Your task to perform on an android device: see creations saved in the google photos Image 0: 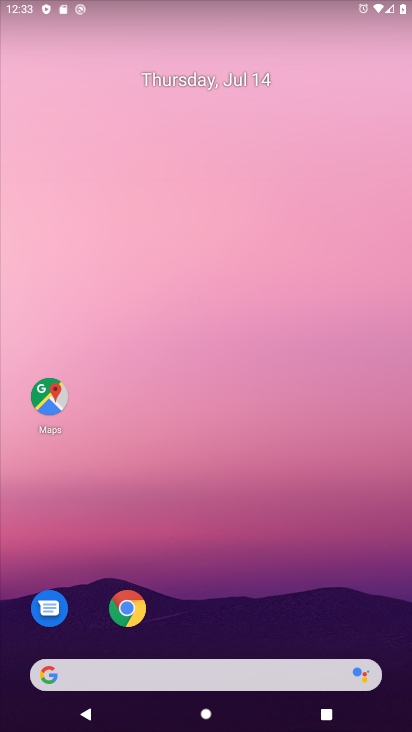
Step 0: drag from (187, 668) to (224, 255)
Your task to perform on an android device: see creations saved in the google photos Image 1: 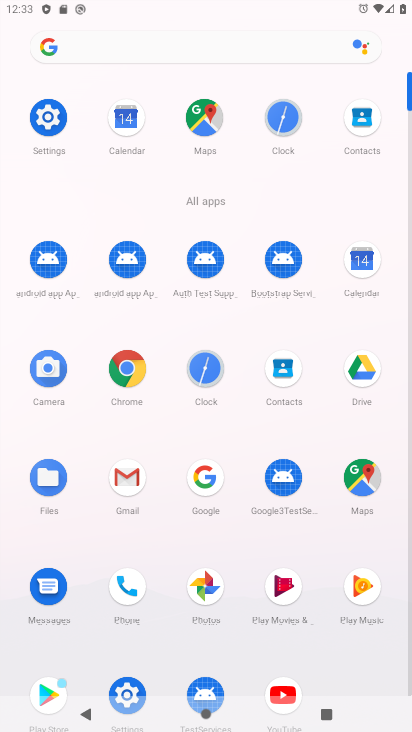
Step 1: click (206, 587)
Your task to perform on an android device: see creations saved in the google photos Image 2: 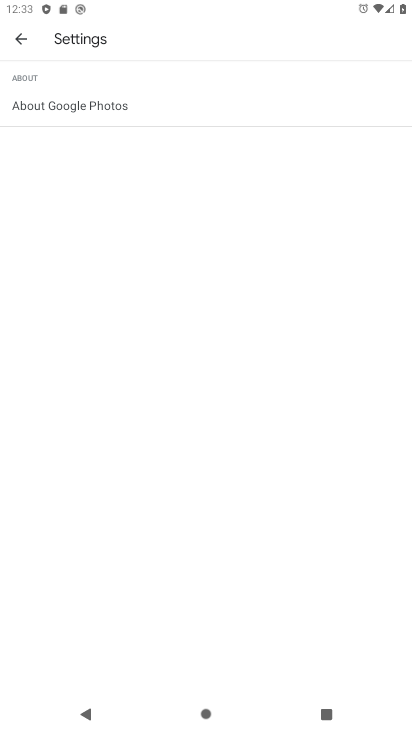
Step 2: press back button
Your task to perform on an android device: see creations saved in the google photos Image 3: 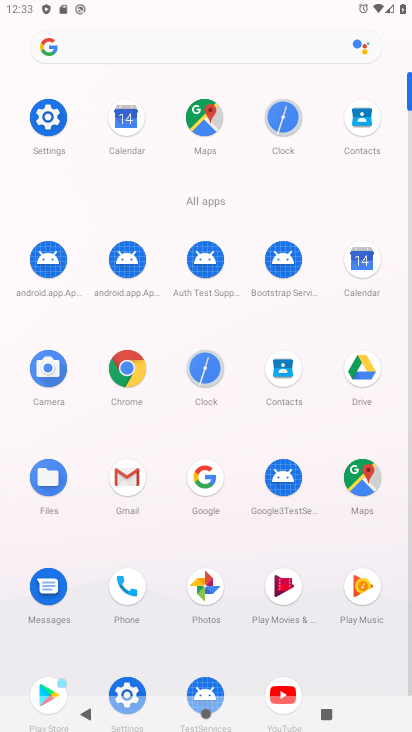
Step 3: click (205, 583)
Your task to perform on an android device: see creations saved in the google photos Image 4: 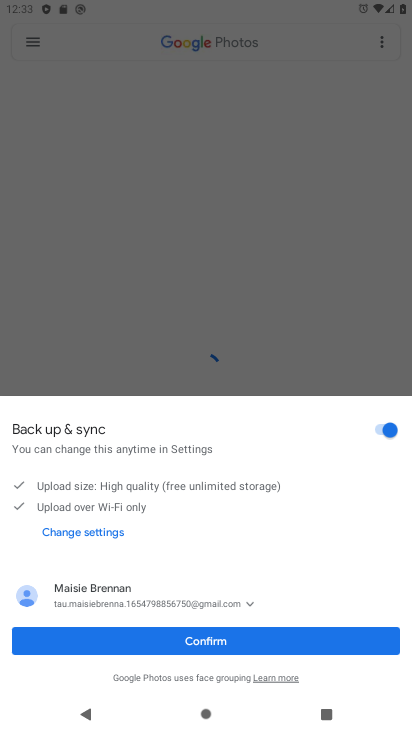
Step 4: click (215, 643)
Your task to perform on an android device: see creations saved in the google photos Image 5: 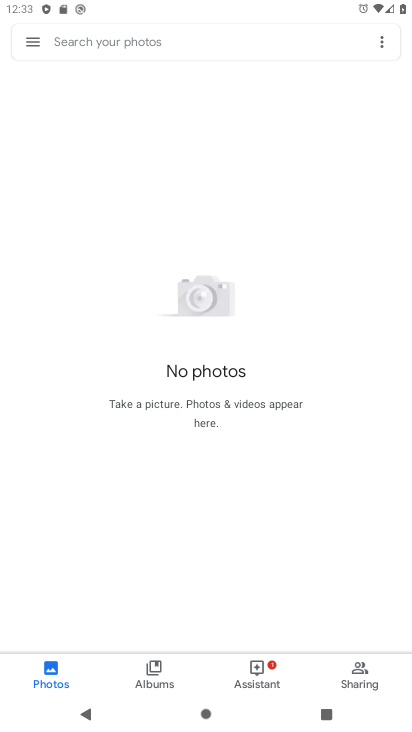
Step 5: click (150, 666)
Your task to perform on an android device: see creations saved in the google photos Image 6: 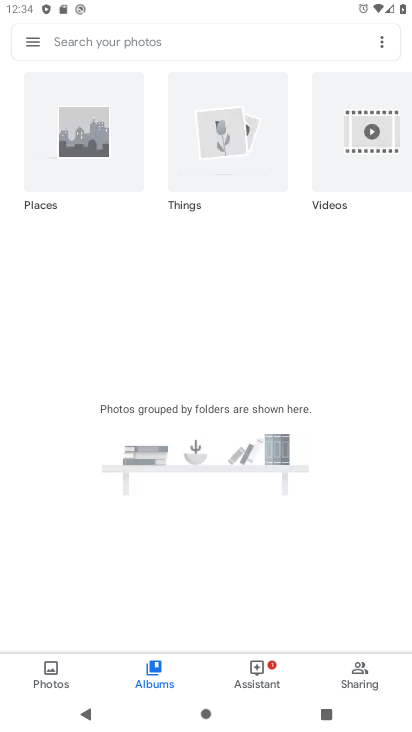
Step 6: click (260, 667)
Your task to perform on an android device: see creations saved in the google photos Image 7: 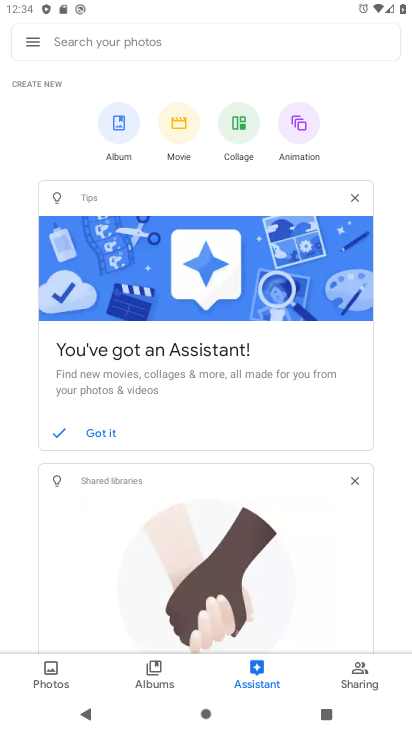
Step 7: click (361, 684)
Your task to perform on an android device: see creations saved in the google photos Image 8: 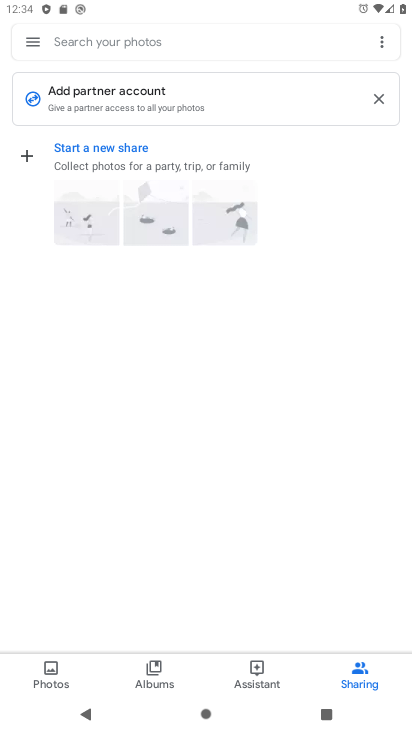
Step 8: click (24, 37)
Your task to perform on an android device: see creations saved in the google photos Image 9: 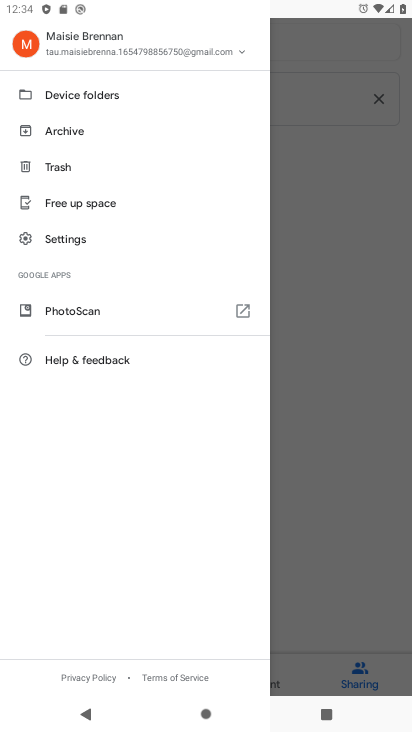
Step 9: click (63, 94)
Your task to perform on an android device: see creations saved in the google photos Image 10: 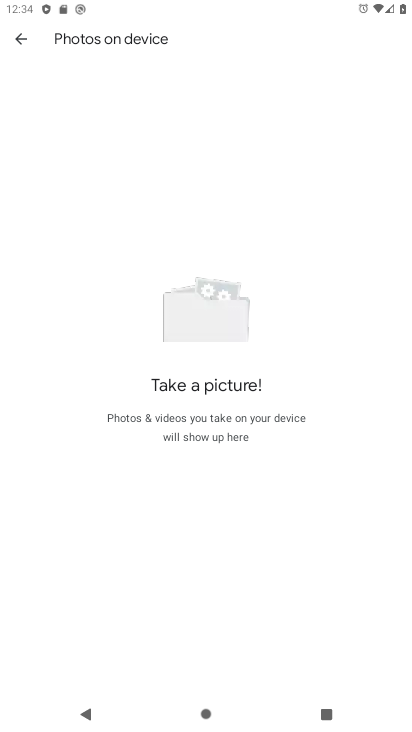
Step 10: press back button
Your task to perform on an android device: see creations saved in the google photos Image 11: 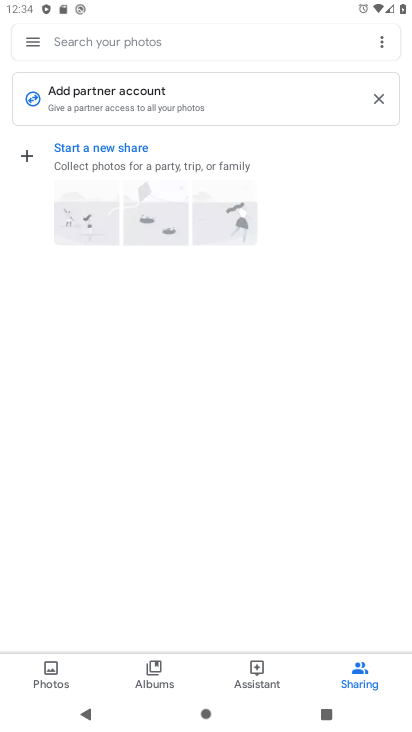
Step 11: click (30, 41)
Your task to perform on an android device: see creations saved in the google photos Image 12: 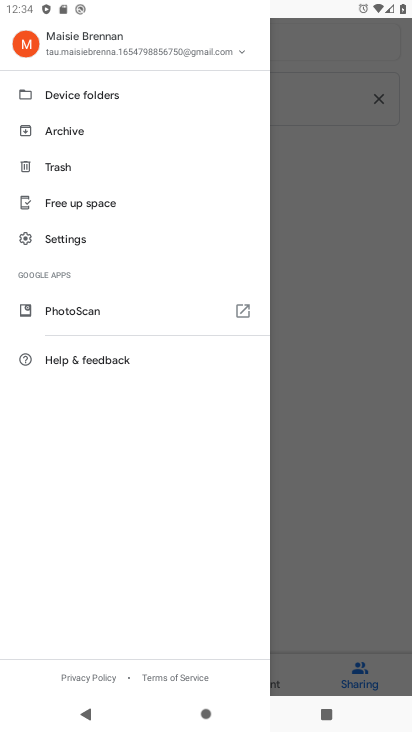
Step 12: click (58, 239)
Your task to perform on an android device: see creations saved in the google photos Image 13: 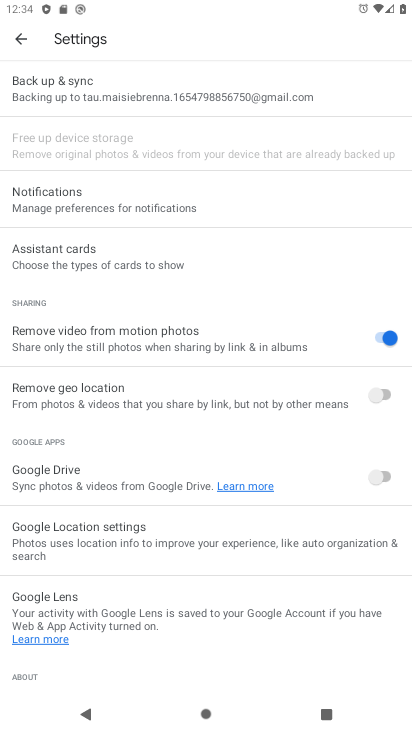
Step 13: click (100, 97)
Your task to perform on an android device: see creations saved in the google photos Image 14: 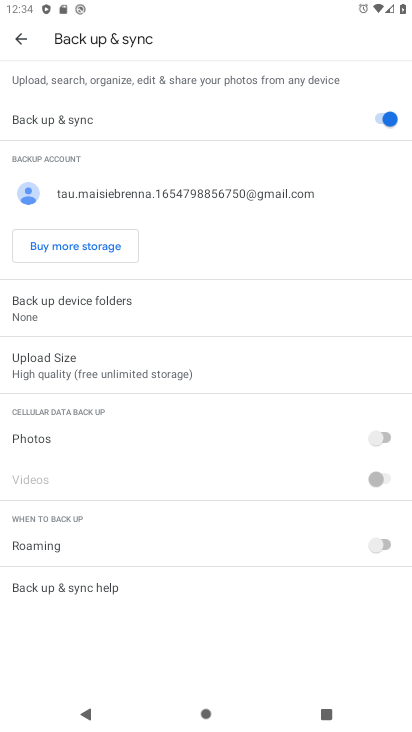
Step 14: click (26, 37)
Your task to perform on an android device: see creations saved in the google photos Image 15: 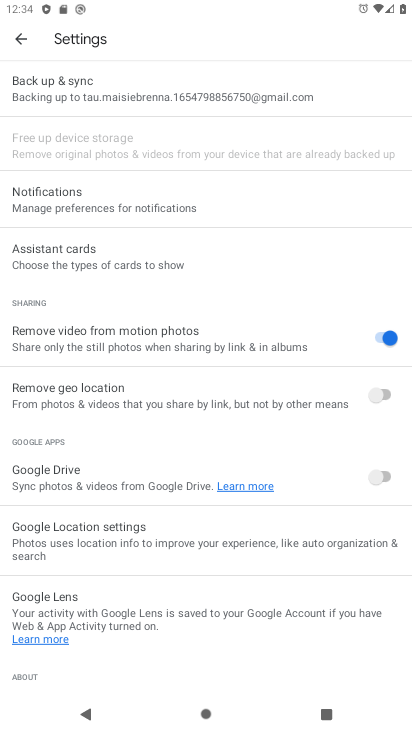
Step 15: click (87, 210)
Your task to perform on an android device: see creations saved in the google photos Image 16: 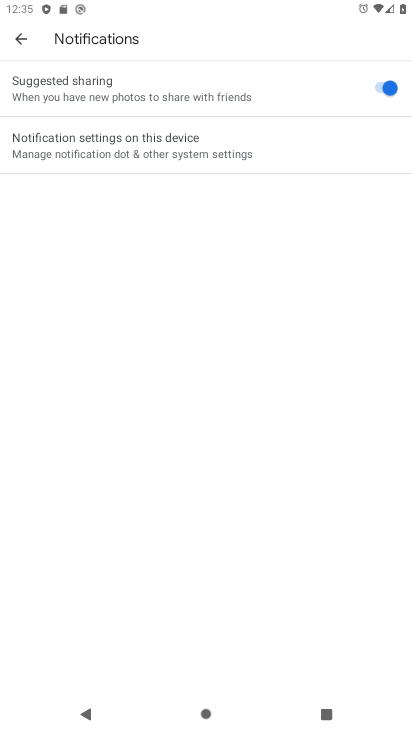
Step 16: press back button
Your task to perform on an android device: see creations saved in the google photos Image 17: 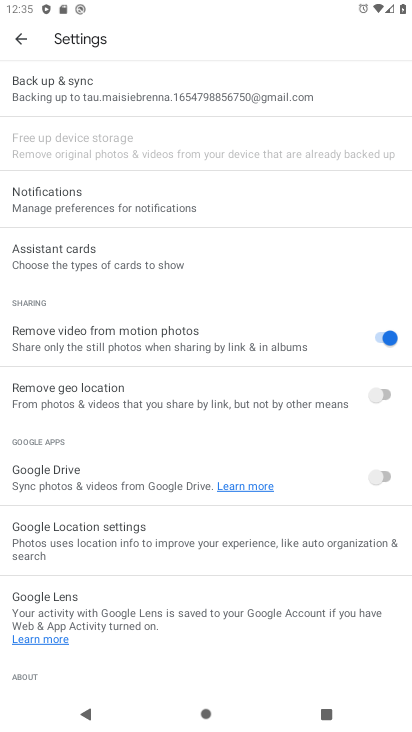
Step 17: click (172, 529)
Your task to perform on an android device: see creations saved in the google photos Image 18: 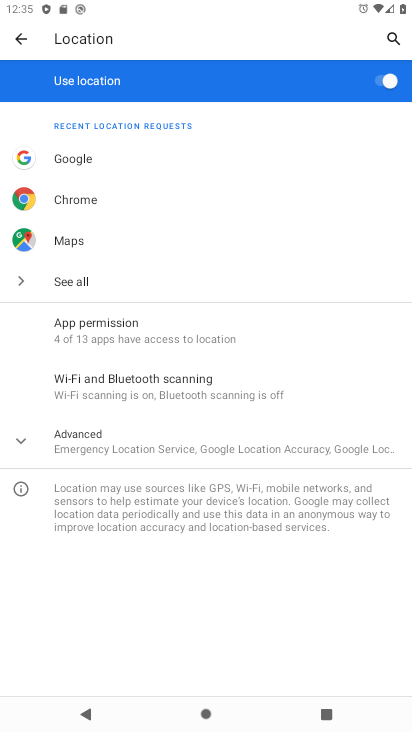
Step 18: press back button
Your task to perform on an android device: see creations saved in the google photos Image 19: 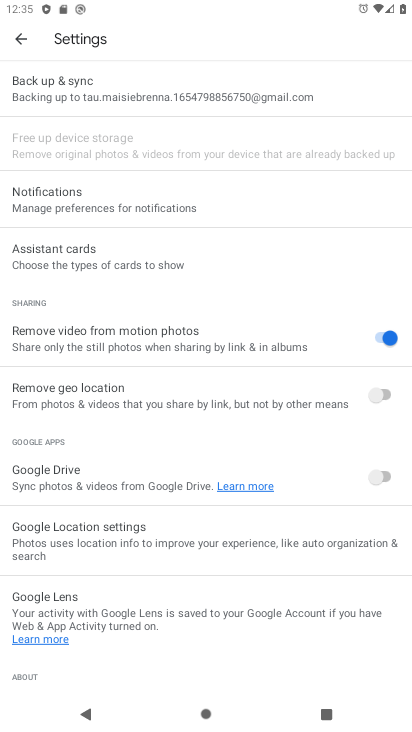
Step 19: press back button
Your task to perform on an android device: see creations saved in the google photos Image 20: 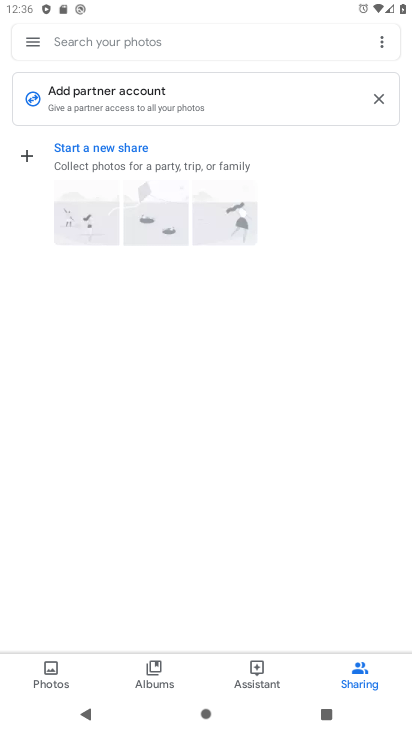
Step 20: click (219, 54)
Your task to perform on an android device: see creations saved in the google photos Image 21: 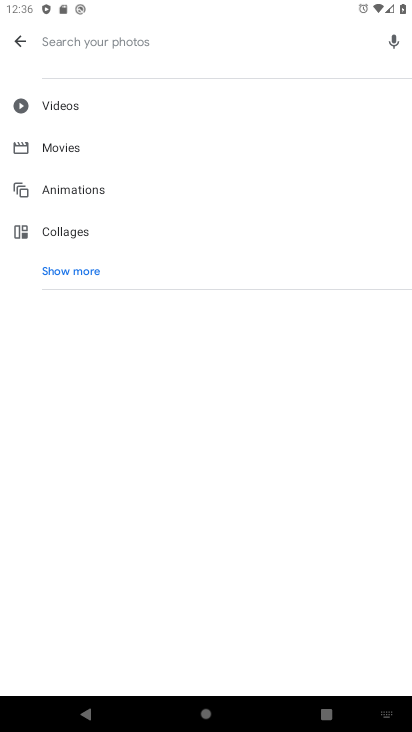
Step 21: click (84, 271)
Your task to perform on an android device: see creations saved in the google photos Image 22: 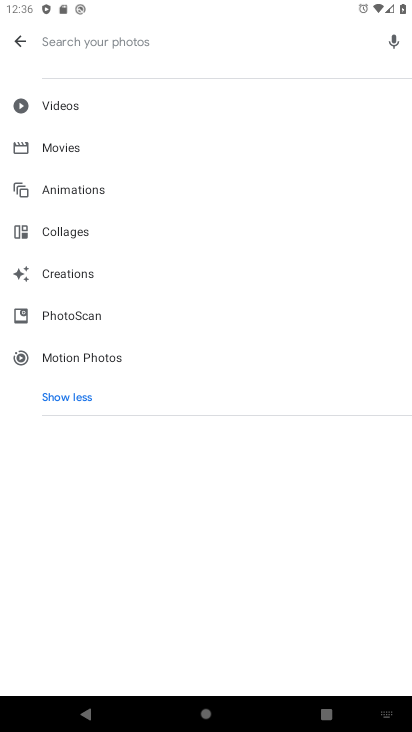
Step 22: click (76, 278)
Your task to perform on an android device: see creations saved in the google photos Image 23: 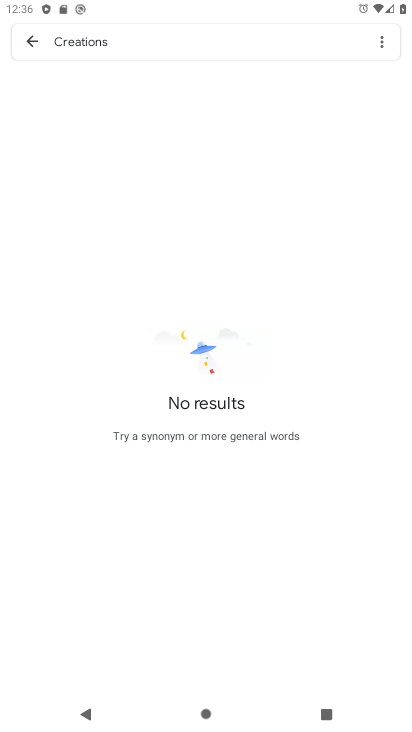
Step 23: click (216, 437)
Your task to perform on an android device: see creations saved in the google photos Image 24: 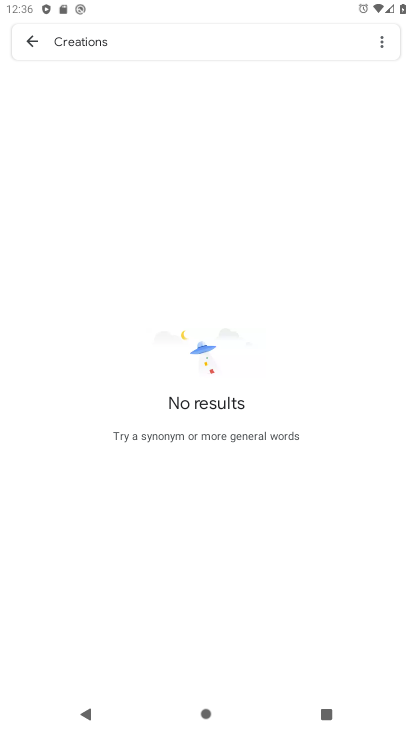
Step 24: task complete